Your task to perform on an android device: delete the emails in spam in the gmail app Image 0: 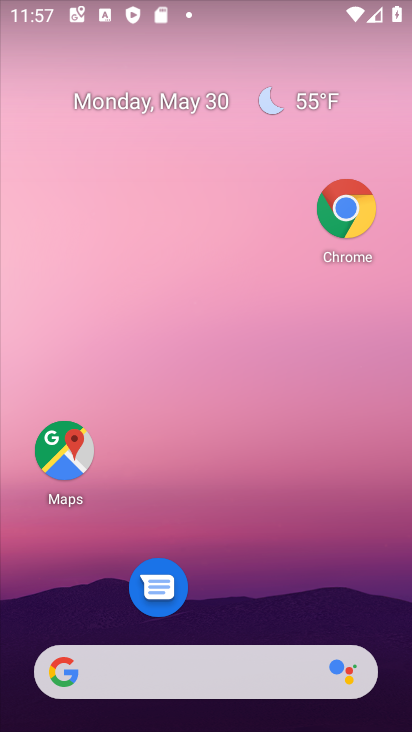
Step 0: drag from (272, 616) to (205, 202)
Your task to perform on an android device: delete the emails in spam in the gmail app Image 1: 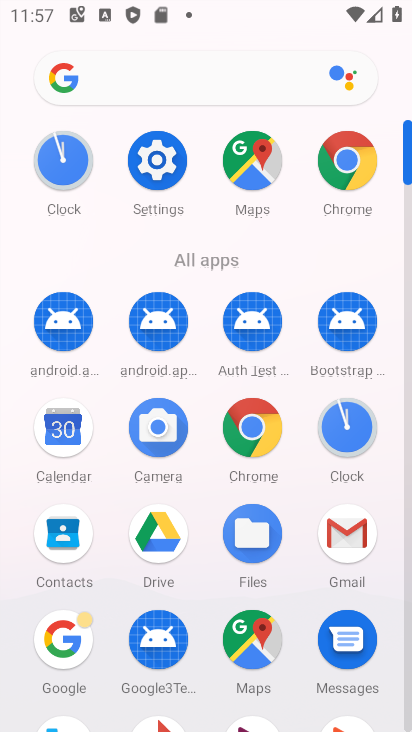
Step 1: click (330, 519)
Your task to perform on an android device: delete the emails in spam in the gmail app Image 2: 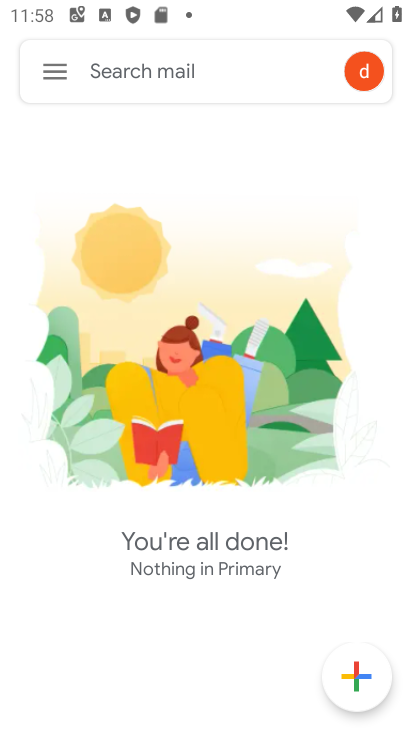
Step 2: click (71, 80)
Your task to perform on an android device: delete the emails in spam in the gmail app Image 3: 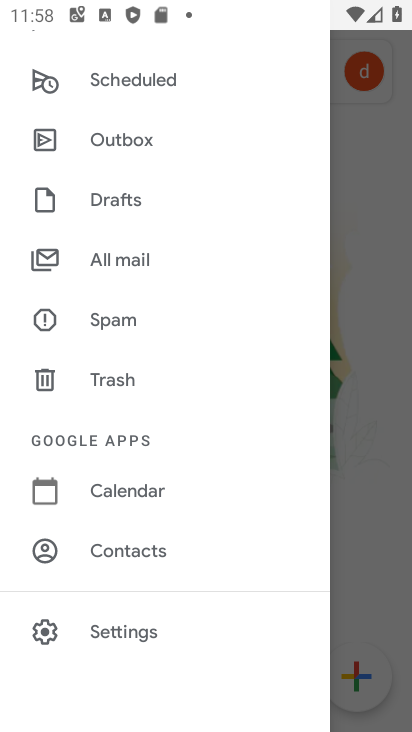
Step 3: click (136, 321)
Your task to perform on an android device: delete the emails in spam in the gmail app Image 4: 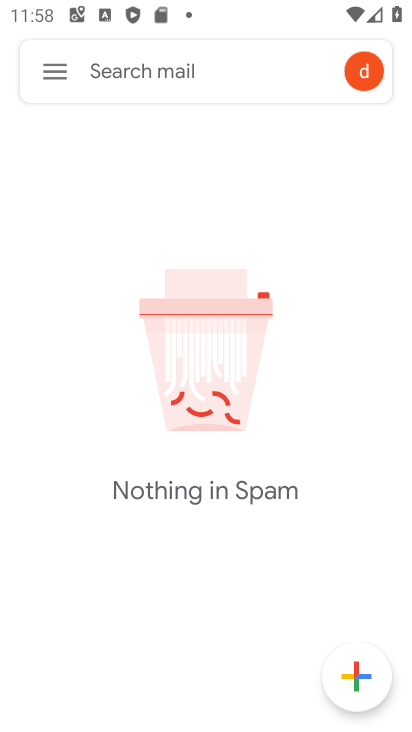
Step 4: task complete